Your task to perform on an android device: Go to location settings Image 0: 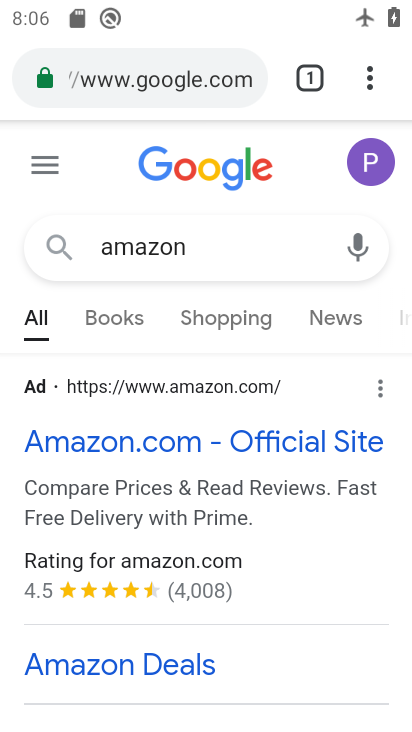
Step 0: press home button
Your task to perform on an android device: Go to location settings Image 1: 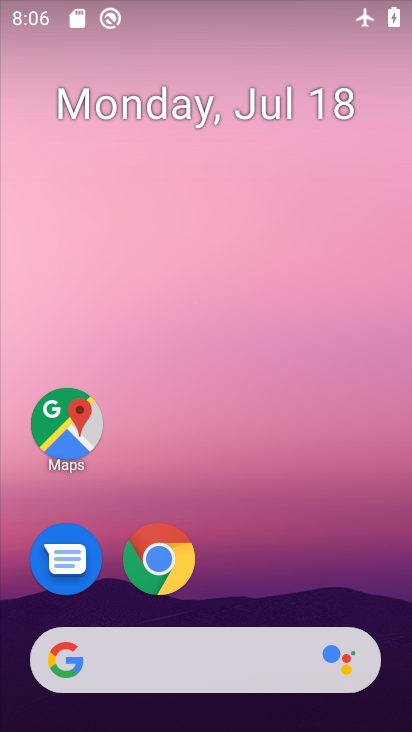
Step 1: drag from (343, 544) to (363, 142)
Your task to perform on an android device: Go to location settings Image 2: 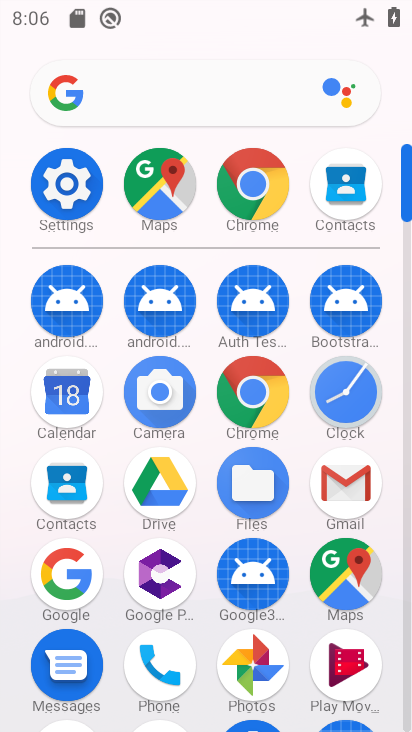
Step 2: click (67, 185)
Your task to perform on an android device: Go to location settings Image 3: 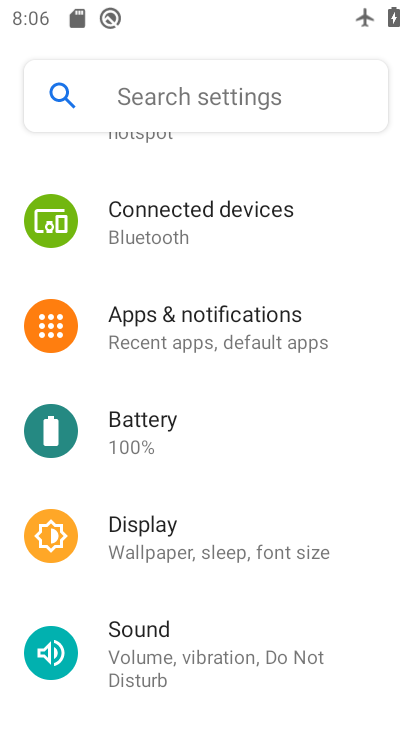
Step 3: drag from (320, 439) to (355, 309)
Your task to perform on an android device: Go to location settings Image 4: 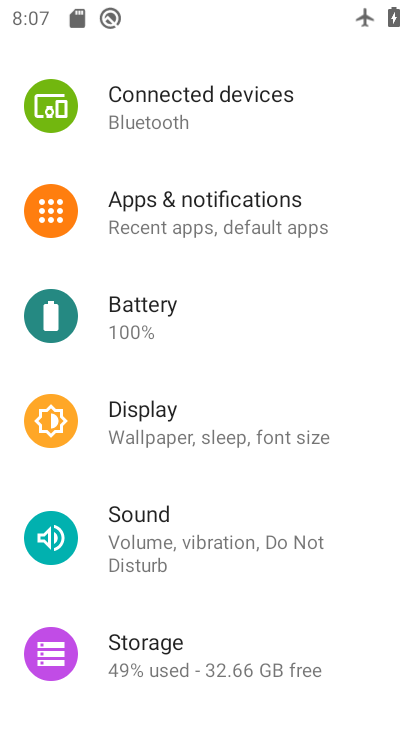
Step 4: drag from (361, 487) to (377, 388)
Your task to perform on an android device: Go to location settings Image 5: 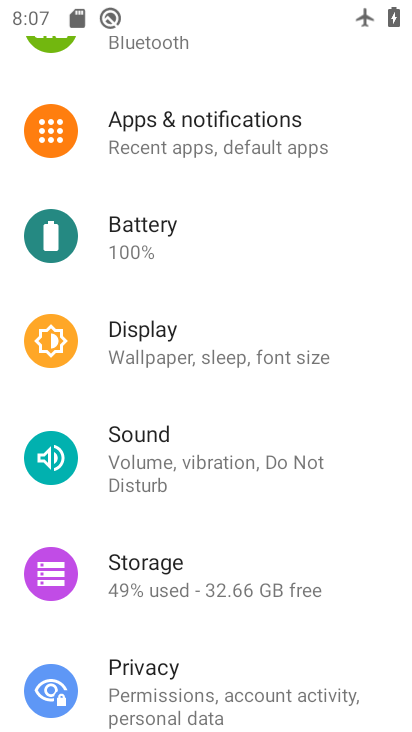
Step 5: drag from (373, 506) to (379, 396)
Your task to perform on an android device: Go to location settings Image 6: 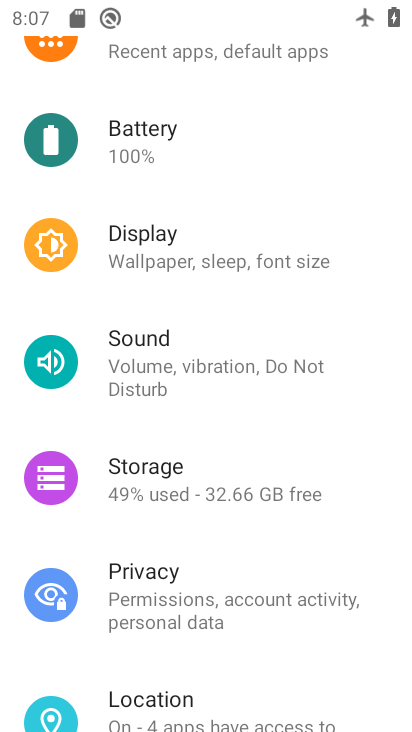
Step 6: drag from (360, 528) to (363, 423)
Your task to perform on an android device: Go to location settings Image 7: 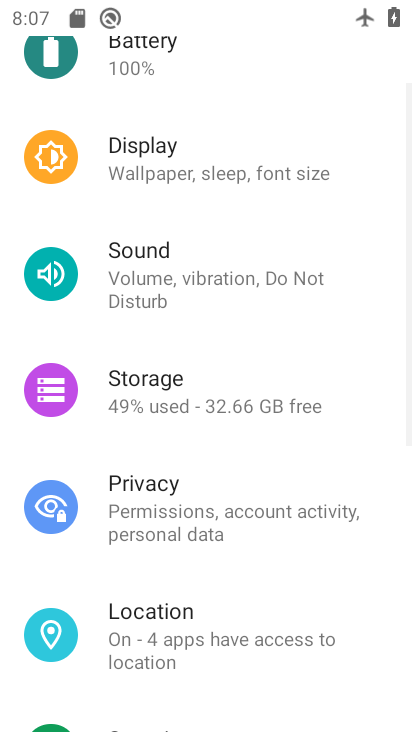
Step 7: drag from (349, 553) to (363, 448)
Your task to perform on an android device: Go to location settings Image 8: 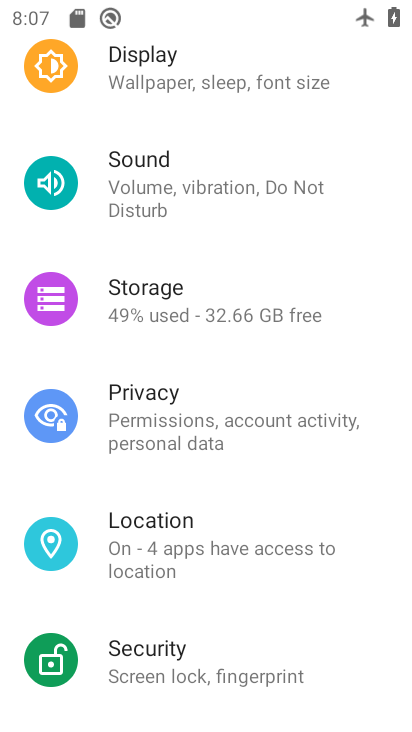
Step 8: drag from (342, 533) to (344, 433)
Your task to perform on an android device: Go to location settings Image 9: 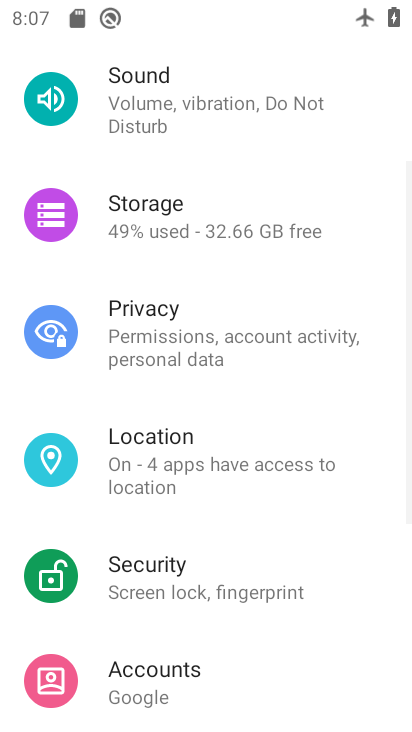
Step 9: drag from (339, 542) to (350, 435)
Your task to perform on an android device: Go to location settings Image 10: 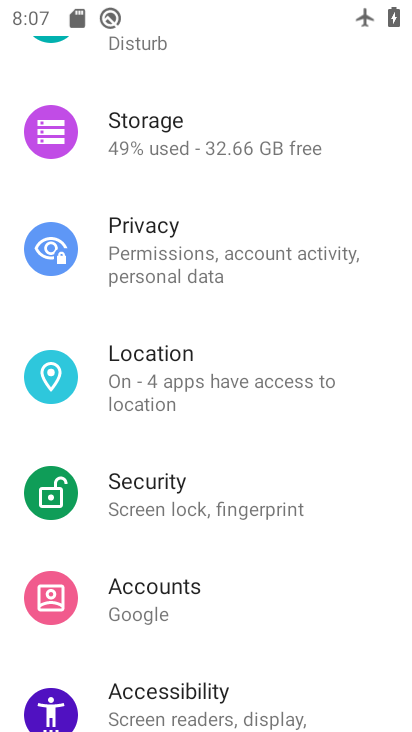
Step 10: drag from (352, 540) to (362, 487)
Your task to perform on an android device: Go to location settings Image 11: 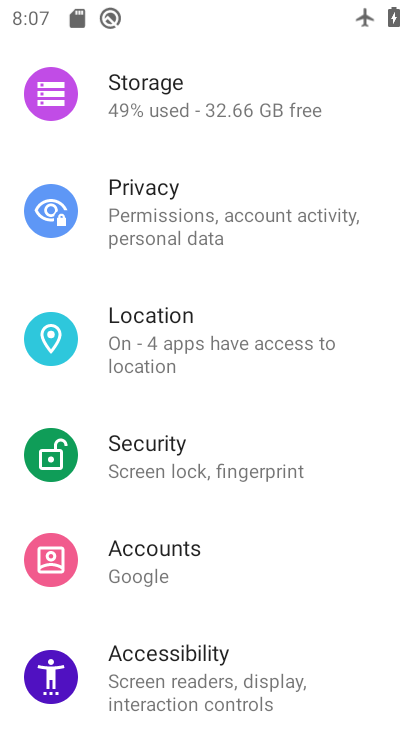
Step 11: drag from (344, 564) to (368, 397)
Your task to perform on an android device: Go to location settings Image 12: 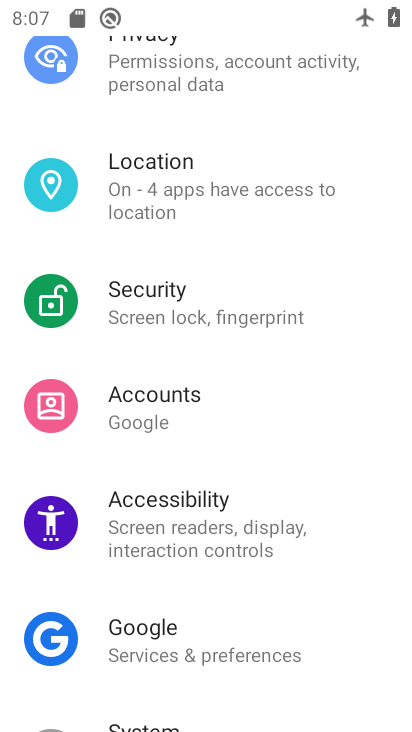
Step 12: click (201, 174)
Your task to perform on an android device: Go to location settings Image 13: 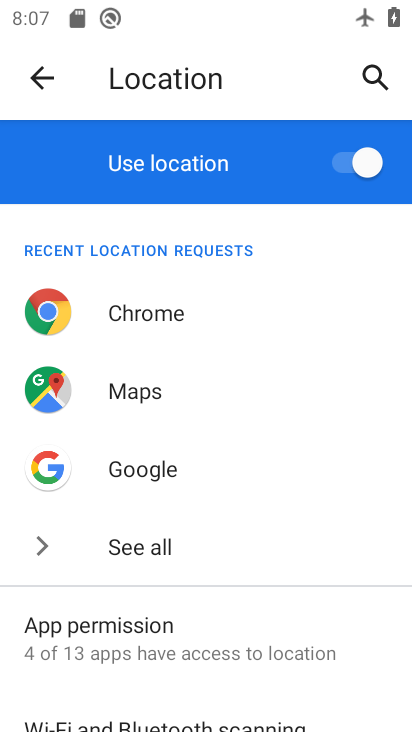
Step 13: task complete